Your task to perform on an android device: What's the weather going to be tomorrow? Image 0: 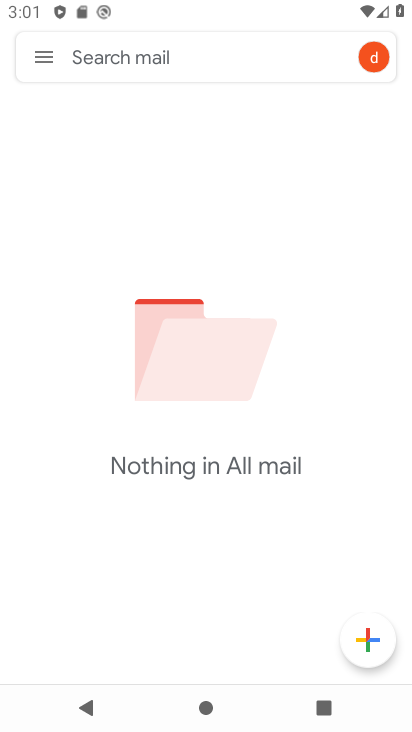
Step 0: press home button
Your task to perform on an android device: What's the weather going to be tomorrow? Image 1: 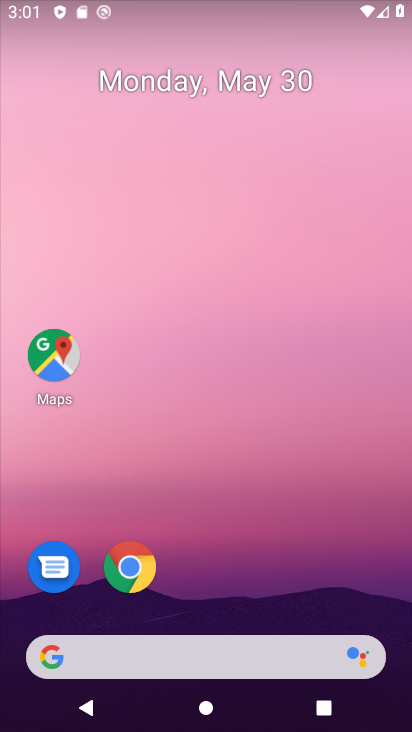
Step 1: click (128, 650)
Your task to perform on an android device: What's the weather going to be tomorrow? Image 2: 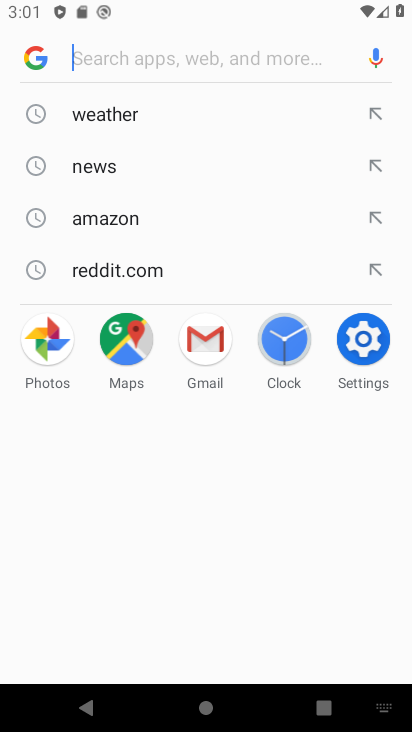
Step 2: type "what;s the weather going to be tomorrow"
Your task to perform on an android device: What's the weather going to be tomorrow? Image 3: 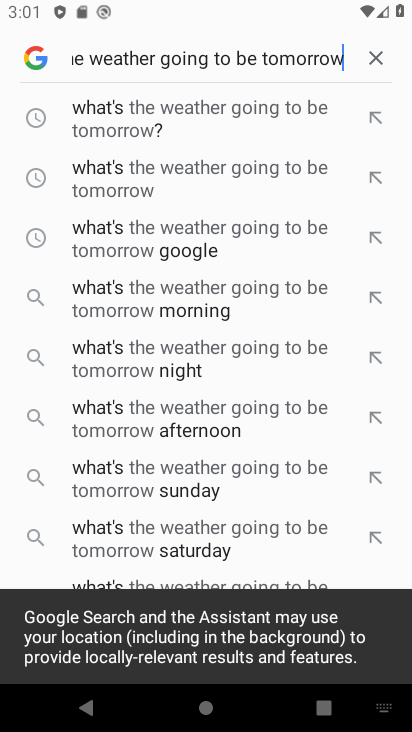
Step 3: click (196, 125)
Your task to perform on an android device: What's the weather going to be tomorrow? Image 4: 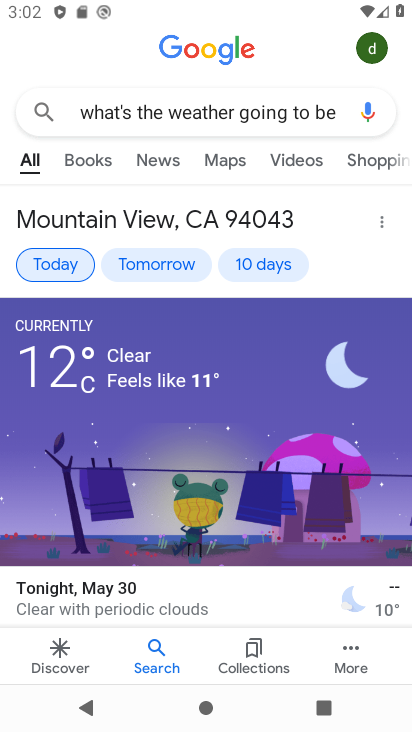
Step 4: click (166, 265)
Your task to perform on an android device: What's the weather going to be tomorrow? Image 5: 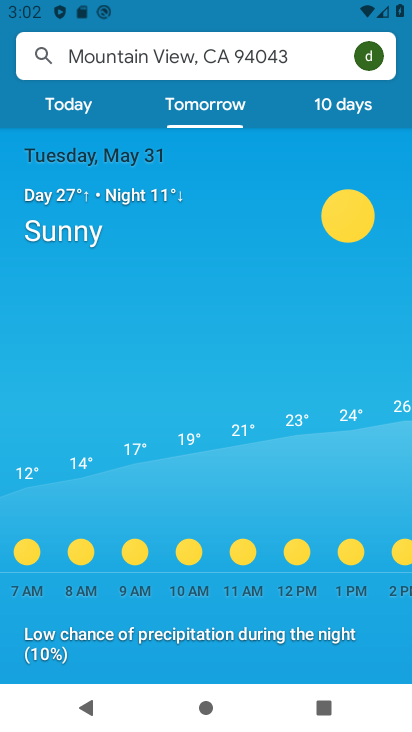
Step 5: task complete